Your task to perform on an android device: open app "AliExpress" (install if not already installed) Image 0: 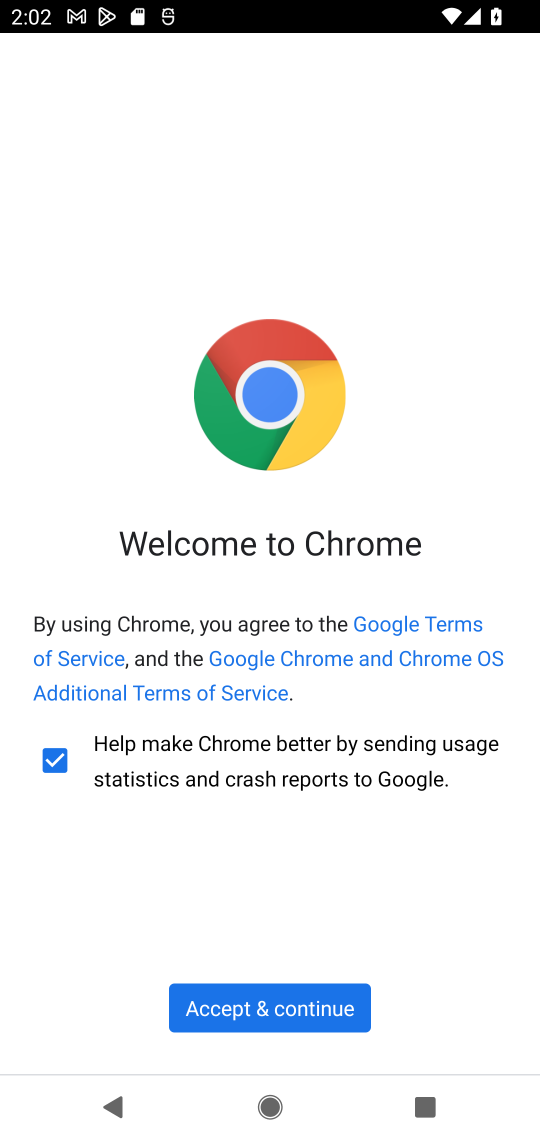
Step 0: press home button
Your task to perform on an android device: open app "AliExpress" (install if not already installed) Image 1: 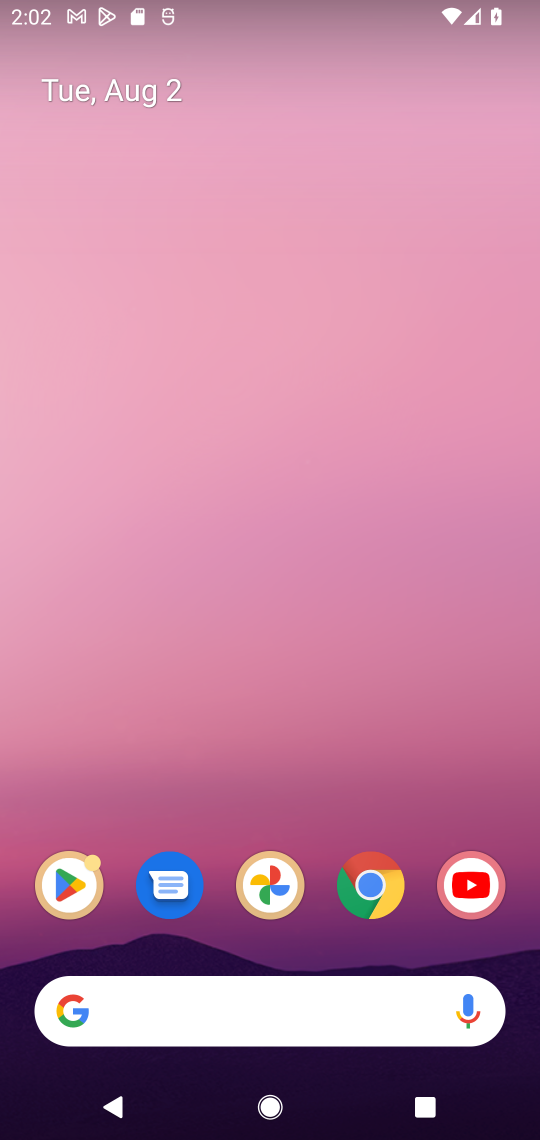
Step 1: click (65, 886)
Your task to perform on an android device: open app "AliExpress" (install if not already installed) Image 2: 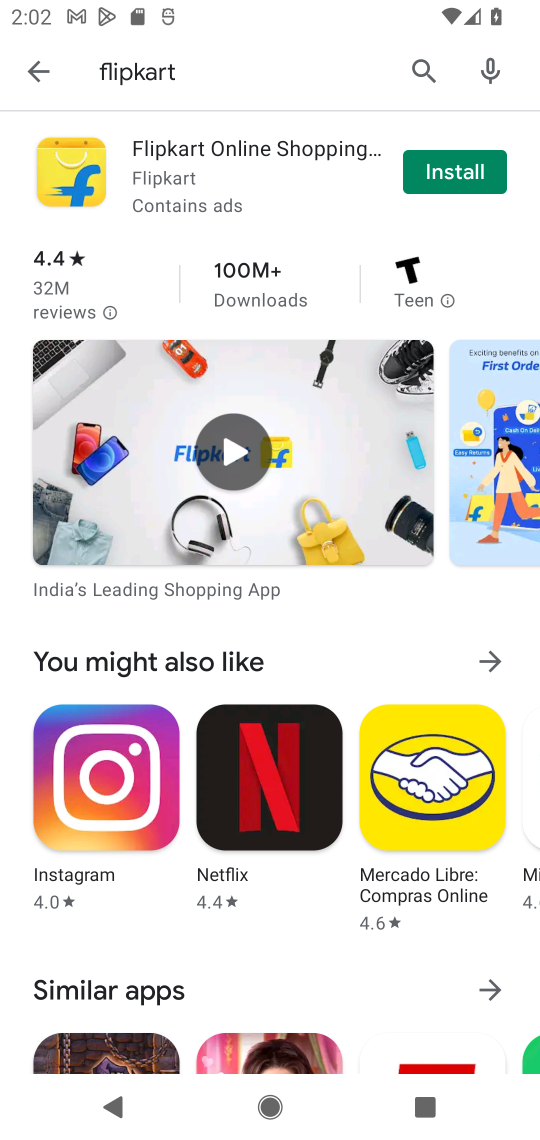
Step 2: click (436, 79)
Your task to perform on an android device: open app "AliExpress" (install if not already installed) Image 3: 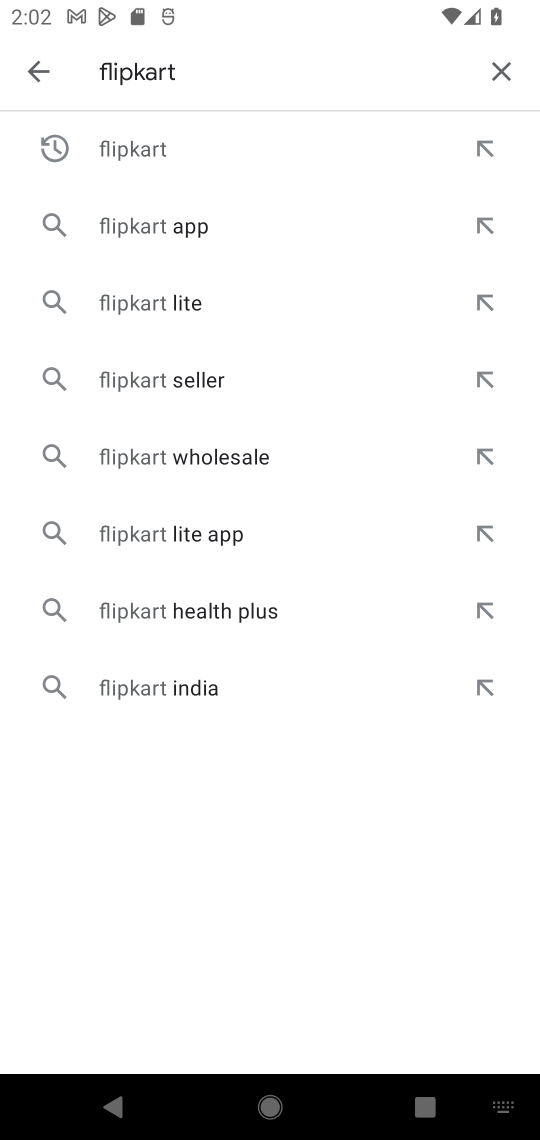
Step 3: click (484, 67)
Your task to perform on an android device: open app "AliExpress" (install if not already installed) Image 4: 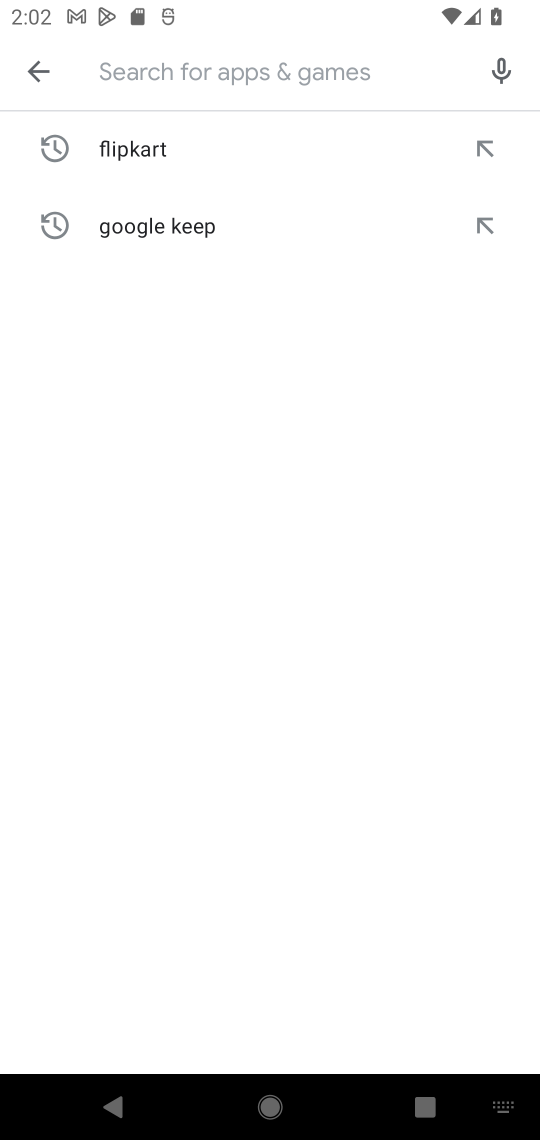
Step 4: type "aliexpress"
Your task to perform on an android device: open app "AliExpress" (install if not already installed) Image 5: 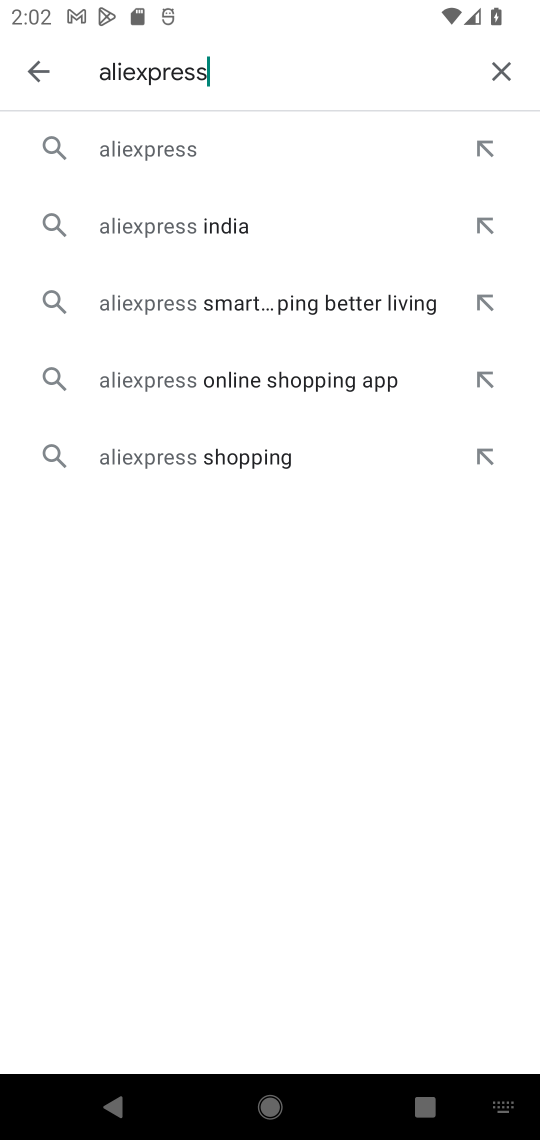
Step 5: click (93, 147)
Your task to perform on an android device: open app "AliExpress" (install if not already installed) Image 6: 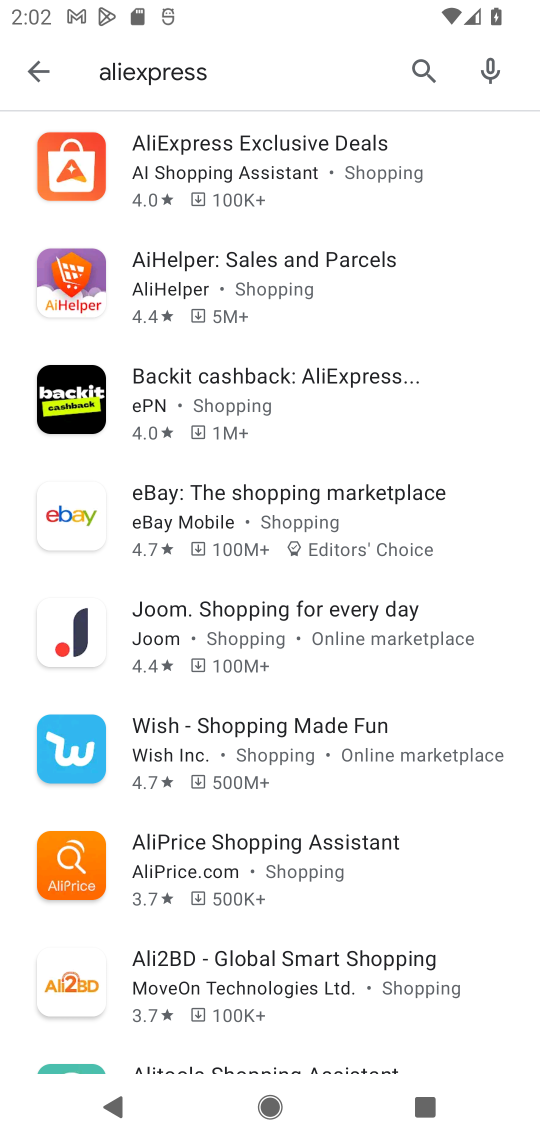
Step 6: click (204, 173)
Your task to perform on an android device: open app "AliExpress" (install if not already installed) Image 7: 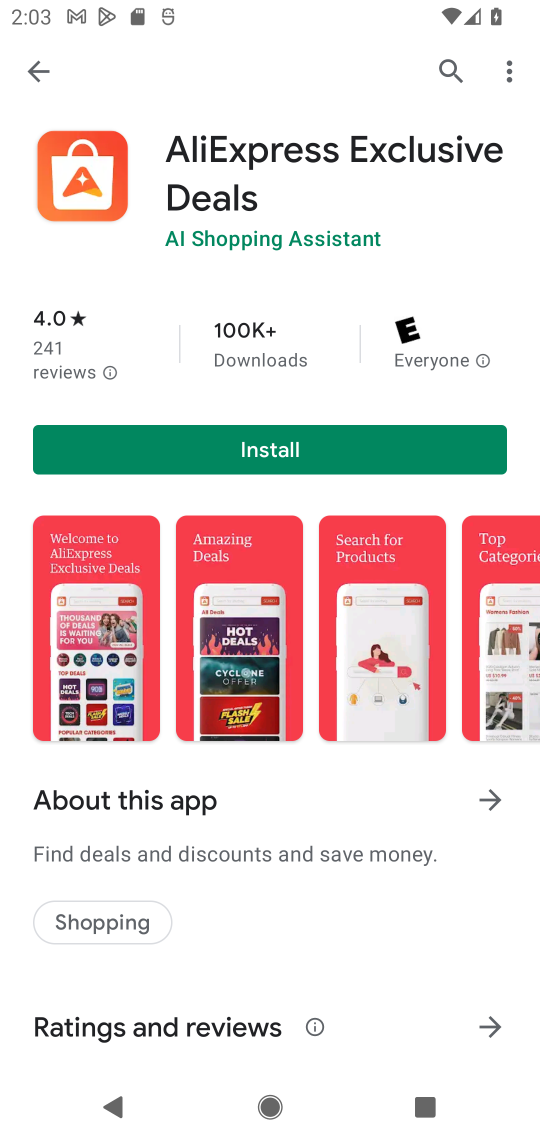
Step 7: click (358, 443)
Your task to perform on an android device: open app "AliExpress" (install if not already installed) Image 8: 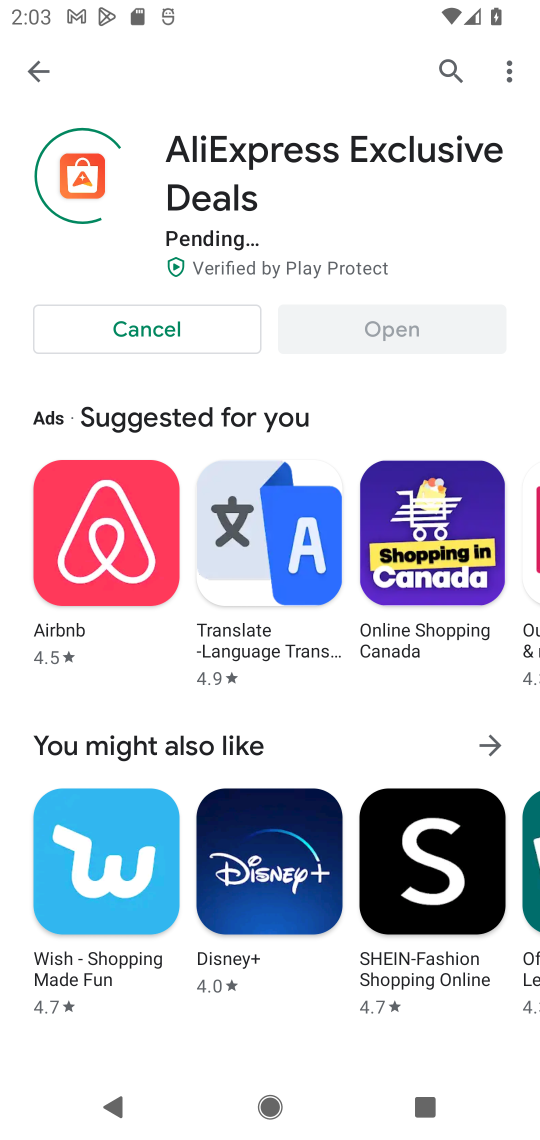
Step 8: task complete